Your task to perform on an android device: visit the assistant section in the google photos Image 0: 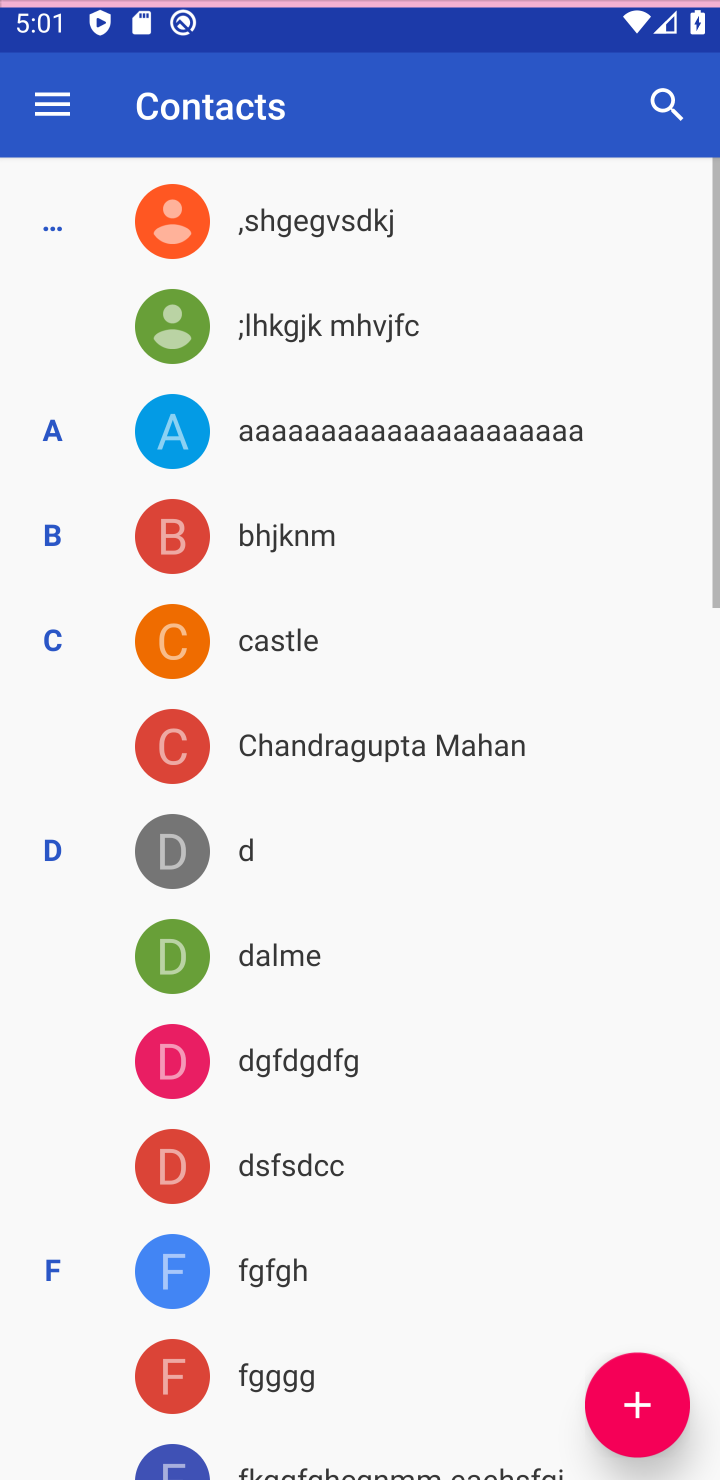
Step 0: press home button
Your task to perform on an android device: visit the assistant section in the google photos Image 1: 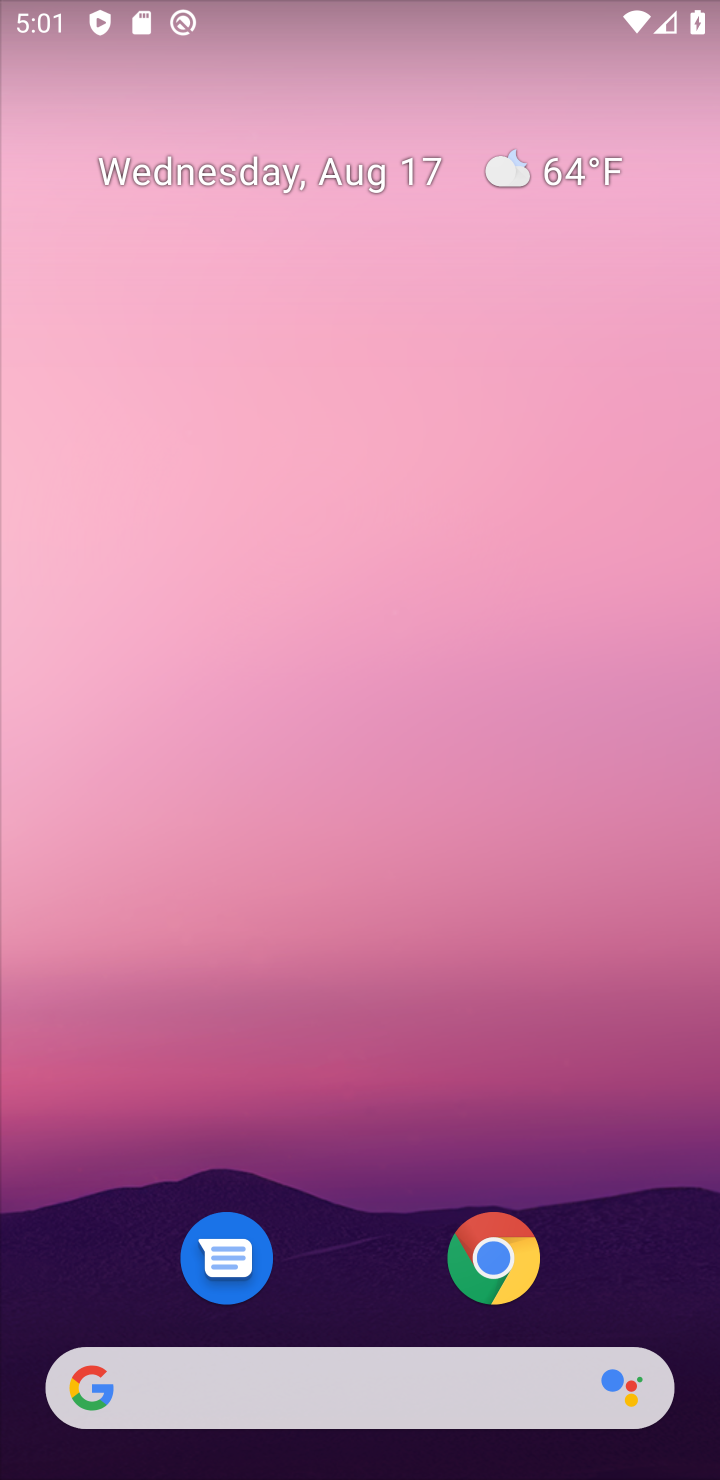
Step 1: drag from (391, 1142) to (613, 0)
Your task to perform on an android device: visit the assistant section in the google photos Image 2: 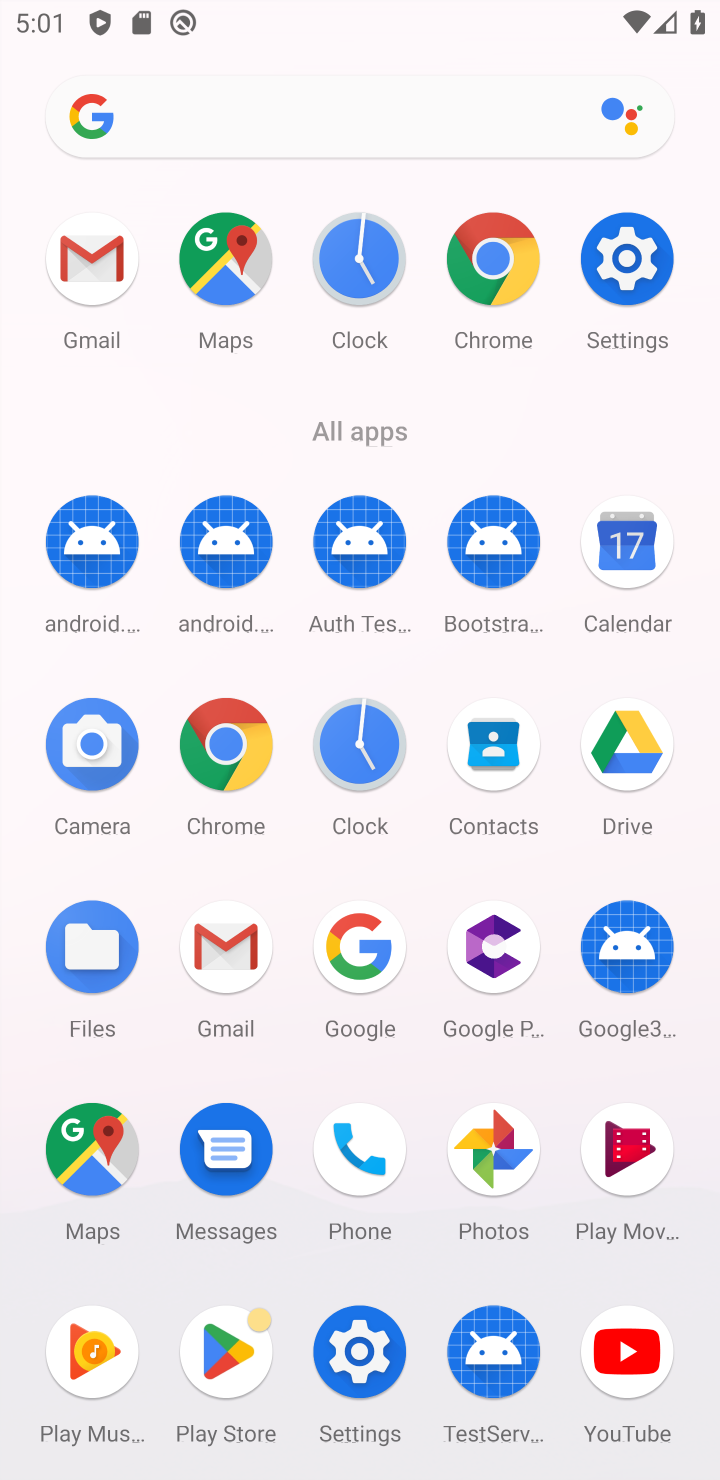
Step 2: click (490, 1142)
Your task to perform on an android device: visit the assistant section in the google photos Image 3: 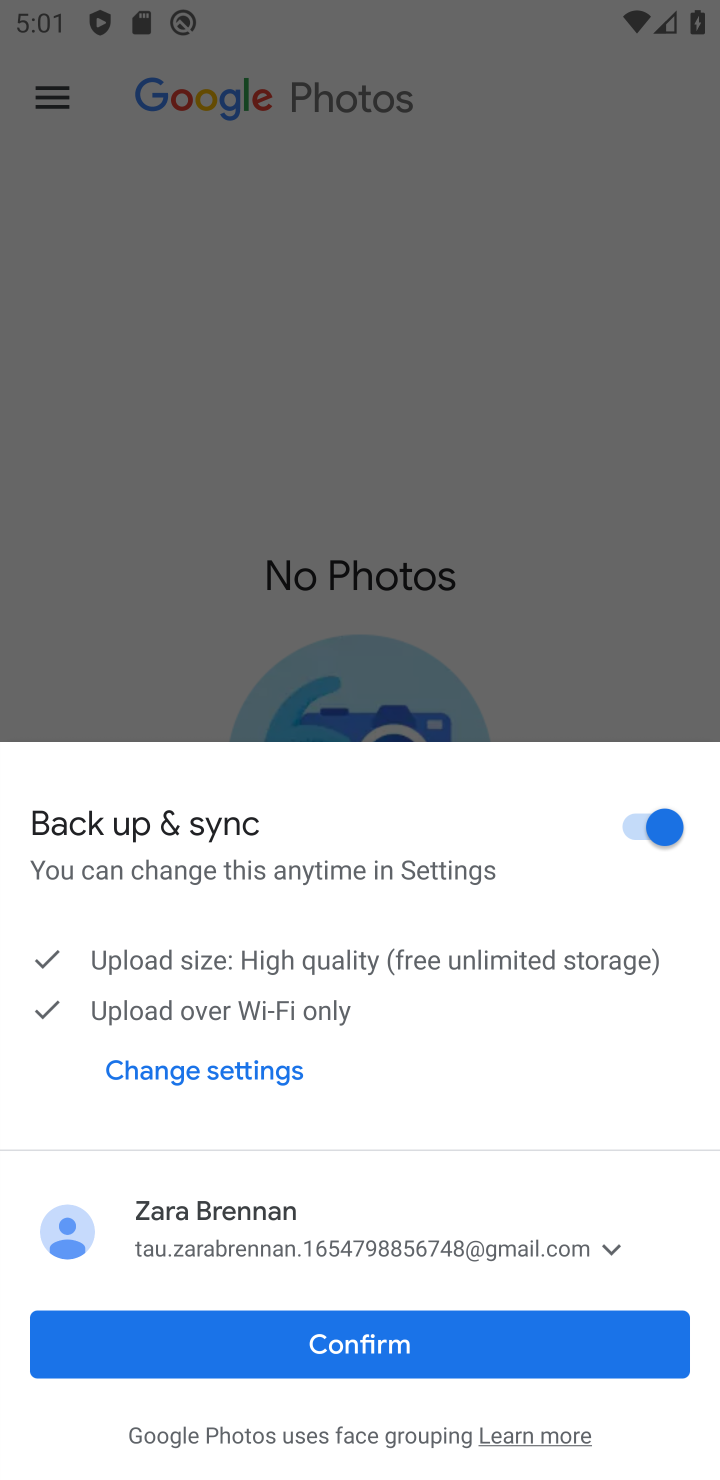
Step 3: click (322, 1335)
Your task to perform on an android device: visit the assistant section in the google photos Image 4: 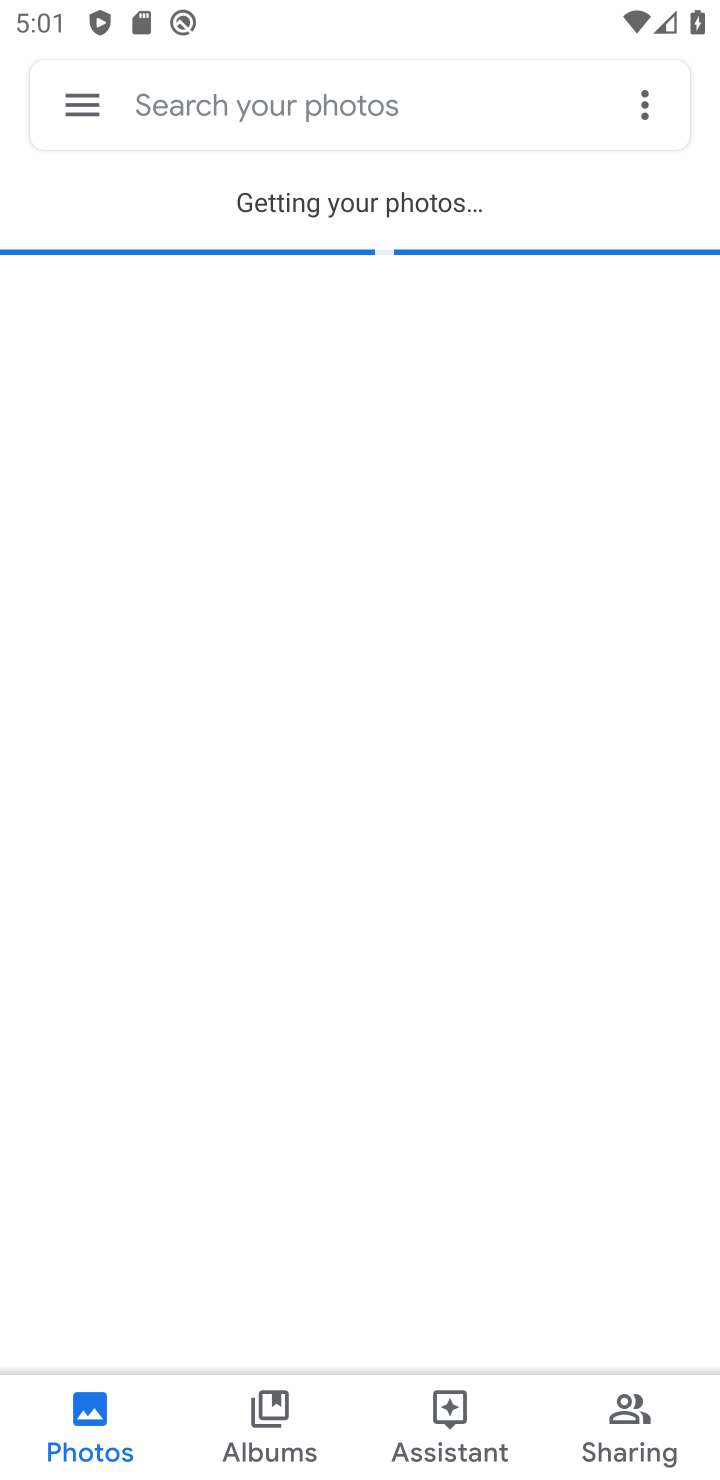
Step 4: click (487, 1473)
Your task to perform on an android device: visit the assistant section in the google photos Image 5: 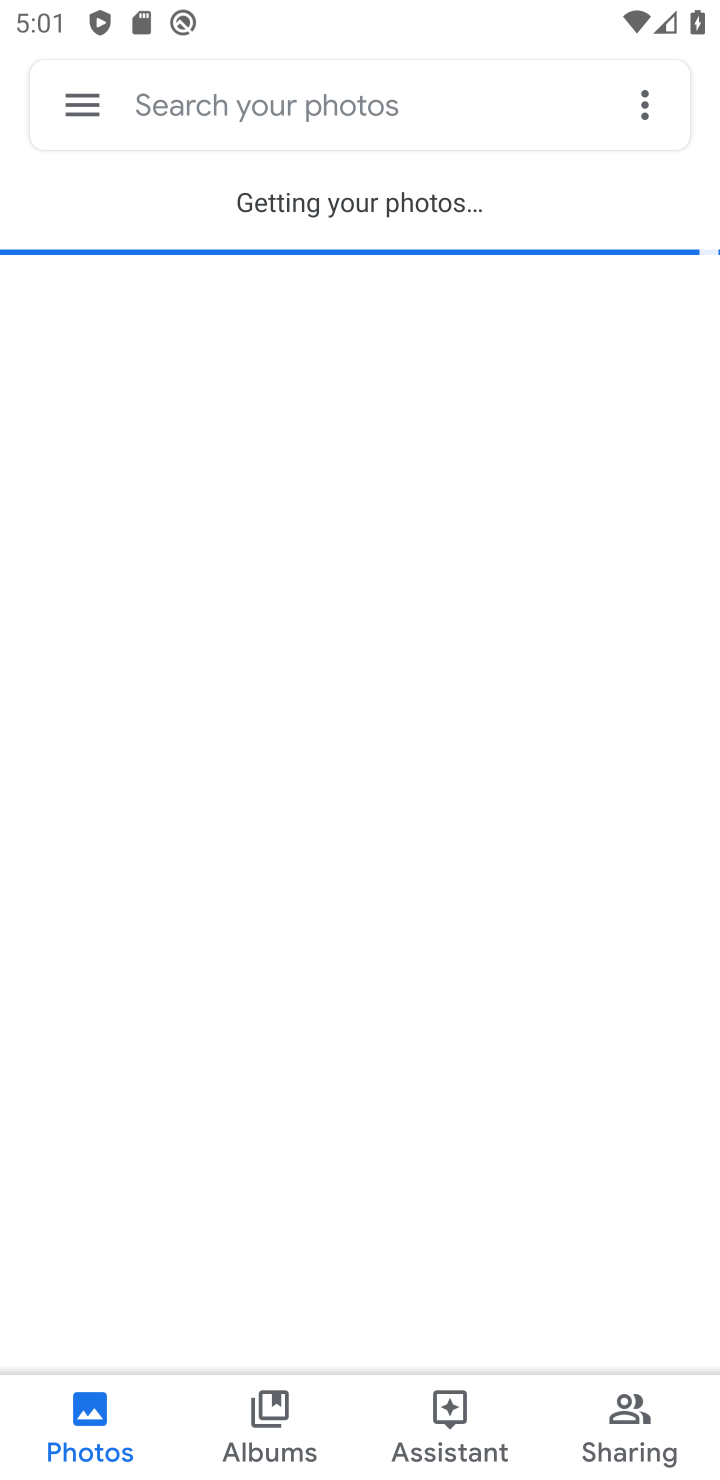
Step 5: click (487, 1460)
Your task to perform on an android device: visit the assistant section in the google photos Image 6: 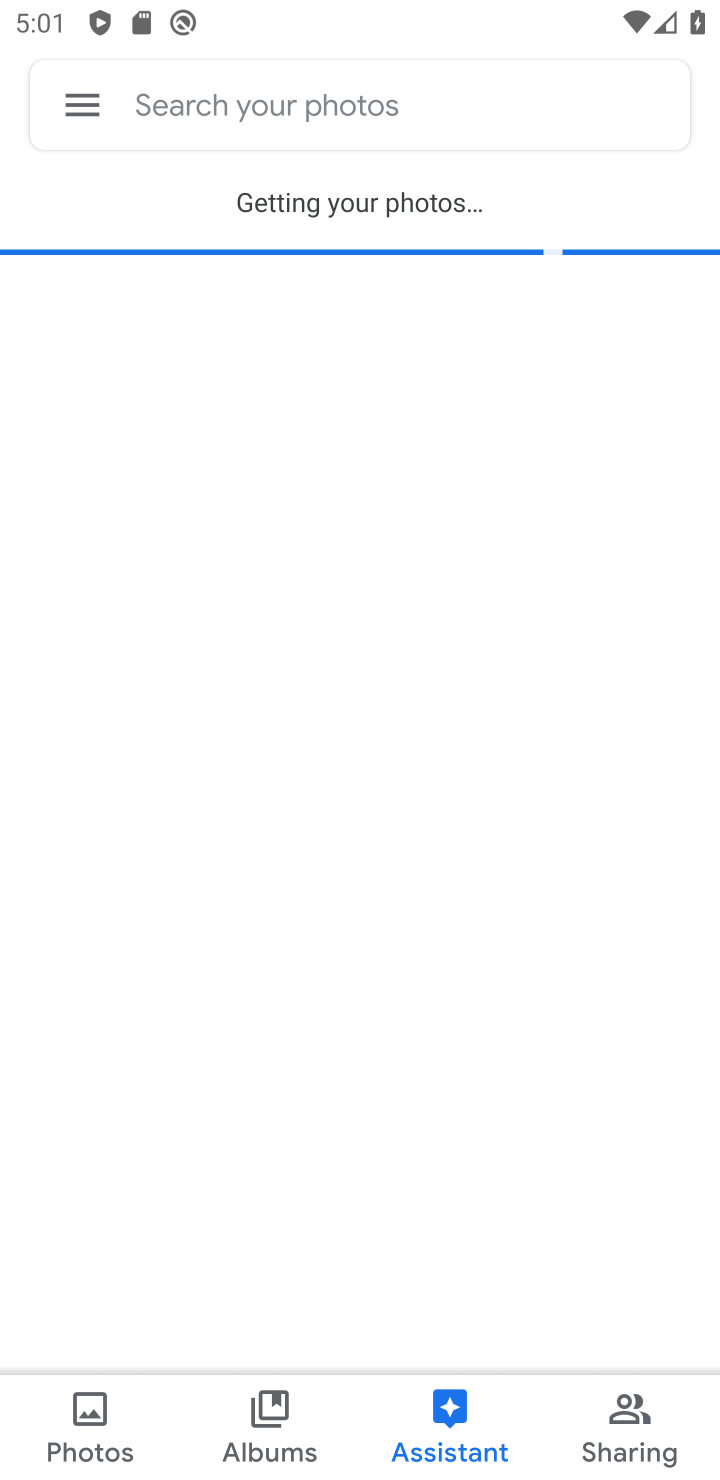
Step 6: click (487, 1460)
Your task to perform on an android device: visit the assistant section in the google photos Image 7: 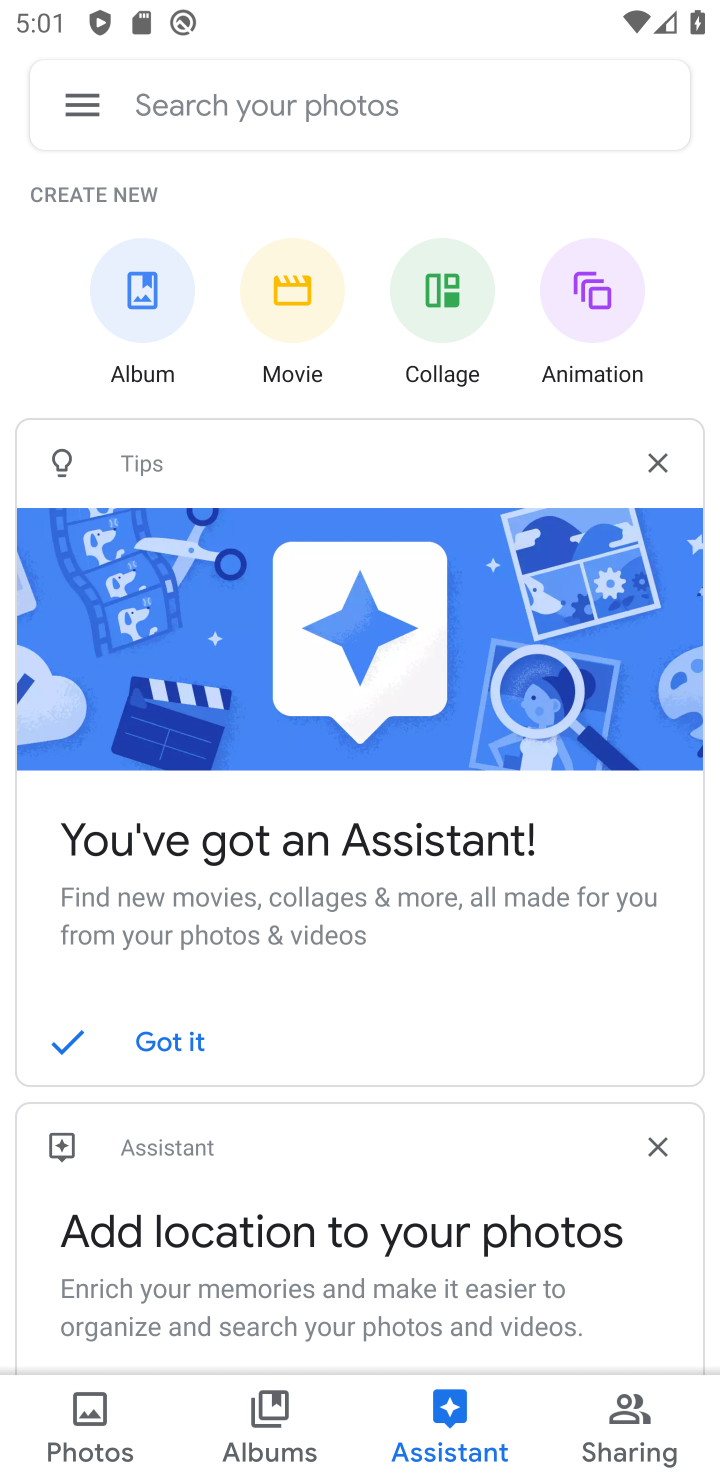
Step 7: task complete